Your task to perform on an android device: create a new album in the google photos Image 0: 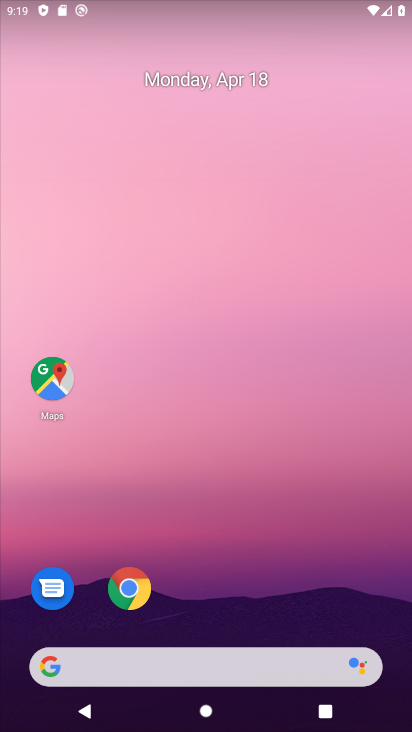
Step 0: drag from (268, 569) to (338, 3)
Your task to perform on an android device: create a new album in the google photos Image 1: 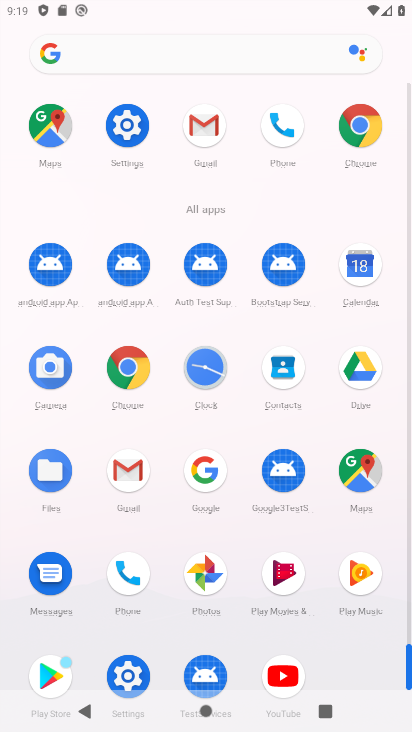
Step 1: click (209, 565)
Your task to perform on an android device: create a new album in the google photos Image 2: 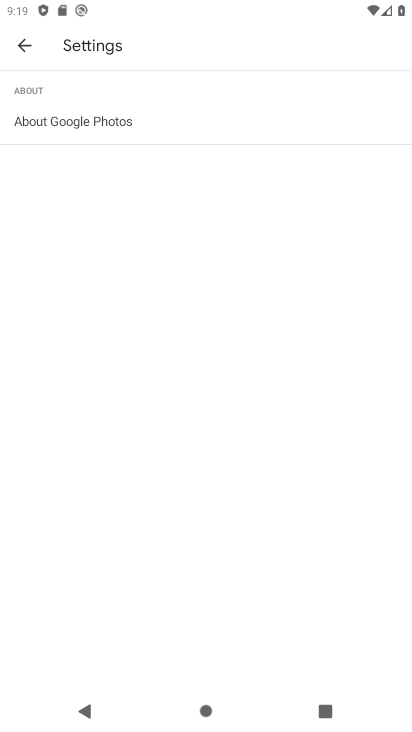
Step 2: click (24, 50)
Your task to perform on an android device: create a new album in the google photos Image 3: 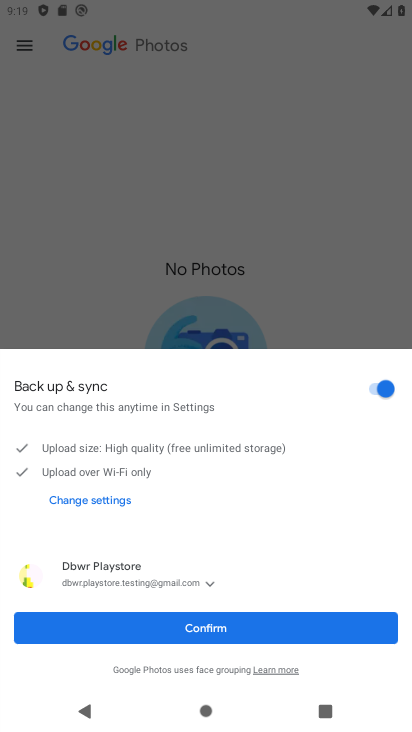
Step 3: click (268, 626)
Your task to perform on an android device: create a new album in the google photos Image 4: 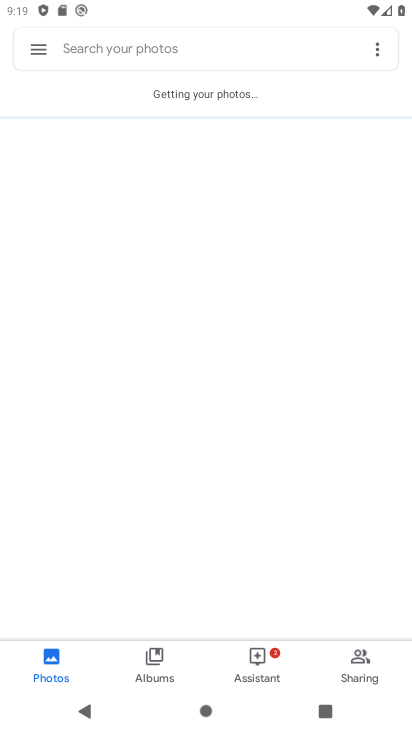
Step 4: click (51, 650)
Your task to perform on an android device: create a new album in the google photos Image 5: 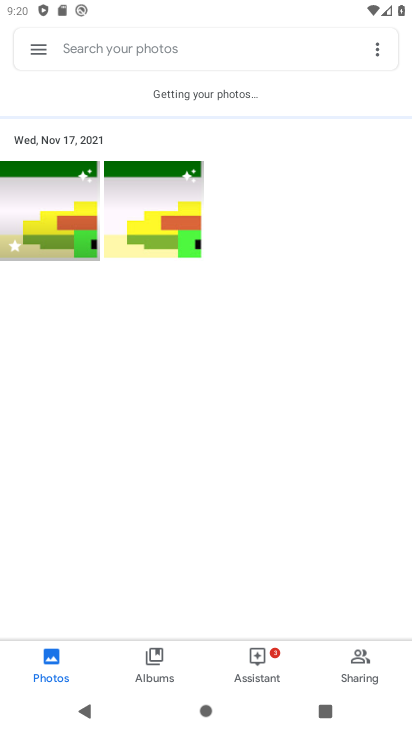
Step 5: click (58, 216)
Your task to perform on an android device: create a new album in the google photos Image 6: 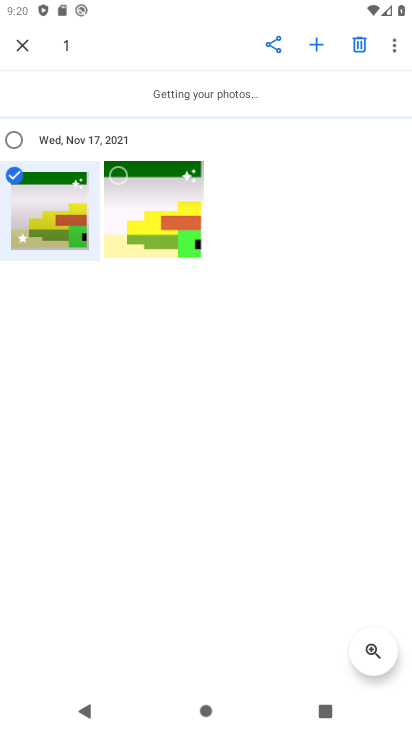
Step 6: click (119, 174)
Your task to perform on an android device: create a new album in the google photos Image 7: 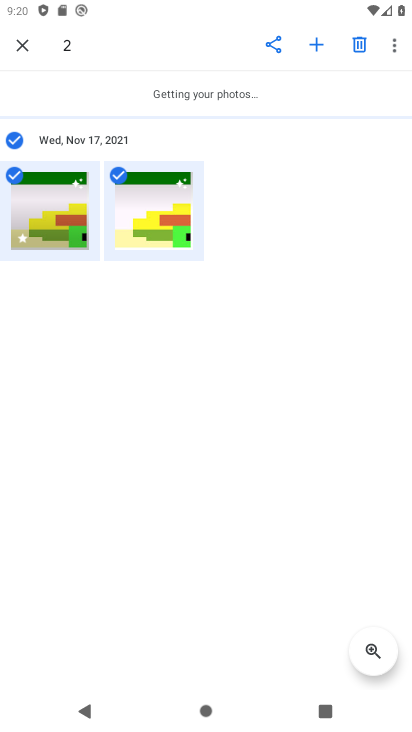
Step 7: click (321, 45)
Your task to perform on an android device: create a new album in the google photos Image 8: 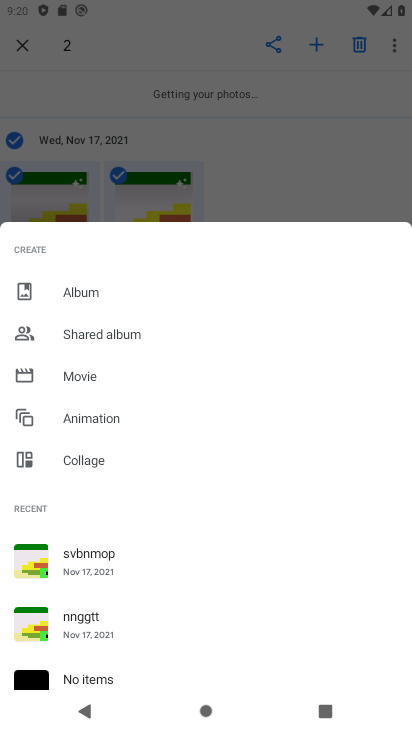
Step 8: click (80, 290)
Your task to perform on an android device: create a new album in the google photos Image 9: 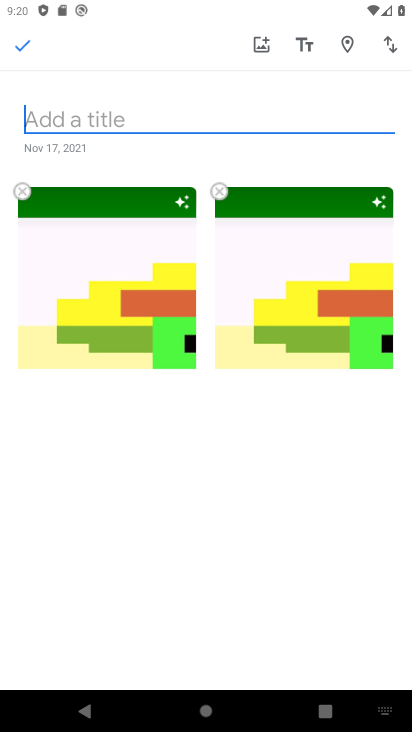
Step 9: type "bbbnnnn"
Your task to perform on an android device: create a new album in the google photos Image 10: 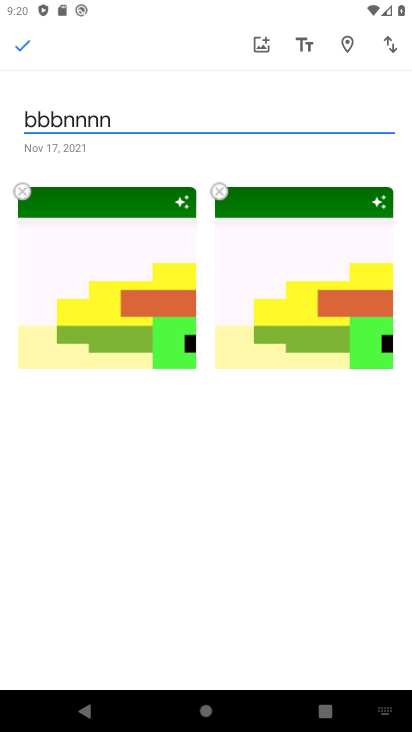
Step 10: click (24, 49)
Your task to perform on an android device: create a new album in the google photos Image 11: 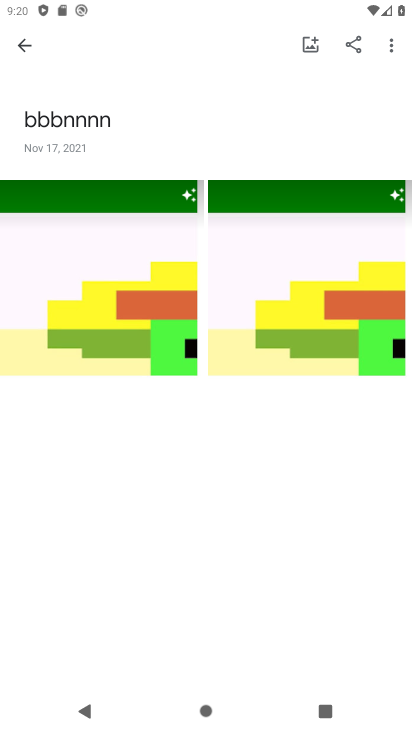
Step 11: task complete